Your task to perform on an android device: check google app version Image 0: 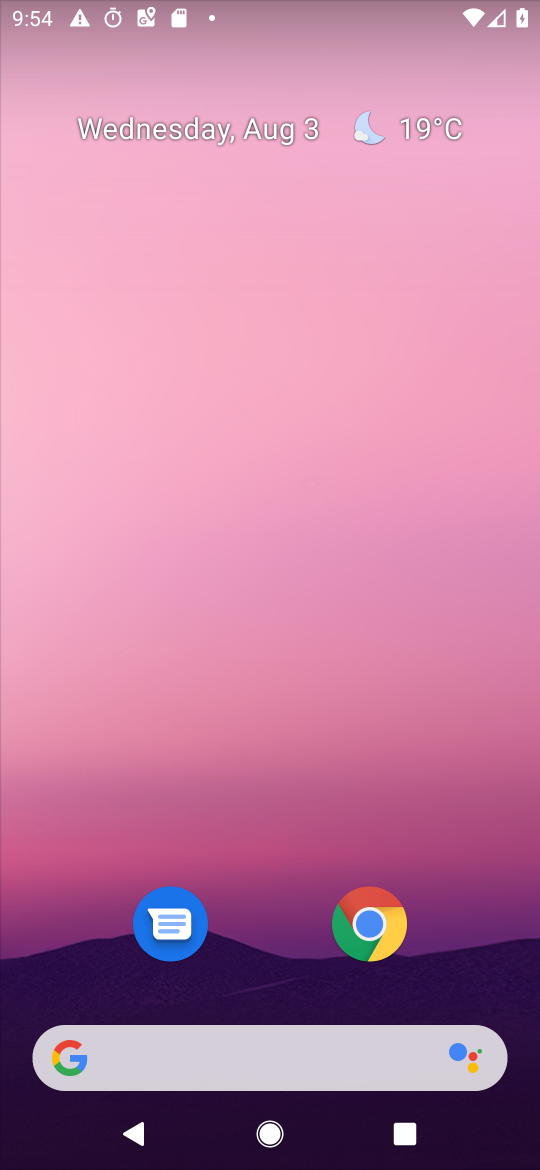
Step 0: press home button
Your task to perform on an android device: check google app version Image 1: 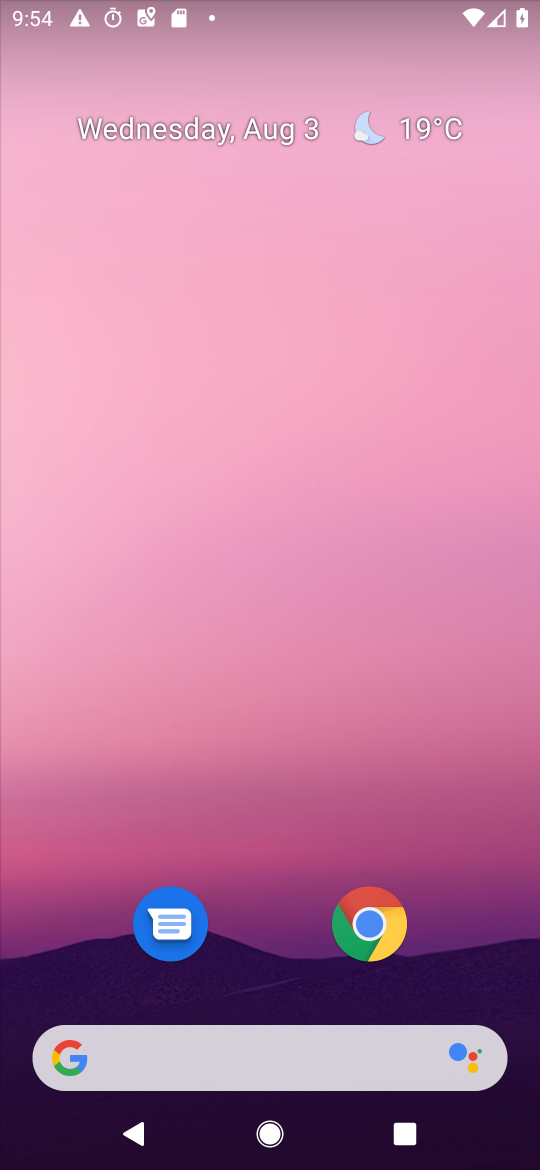
Step 1: drag from (280, 983) to (330, 48)
Your task to perform on an android device: check google app version Image 2: 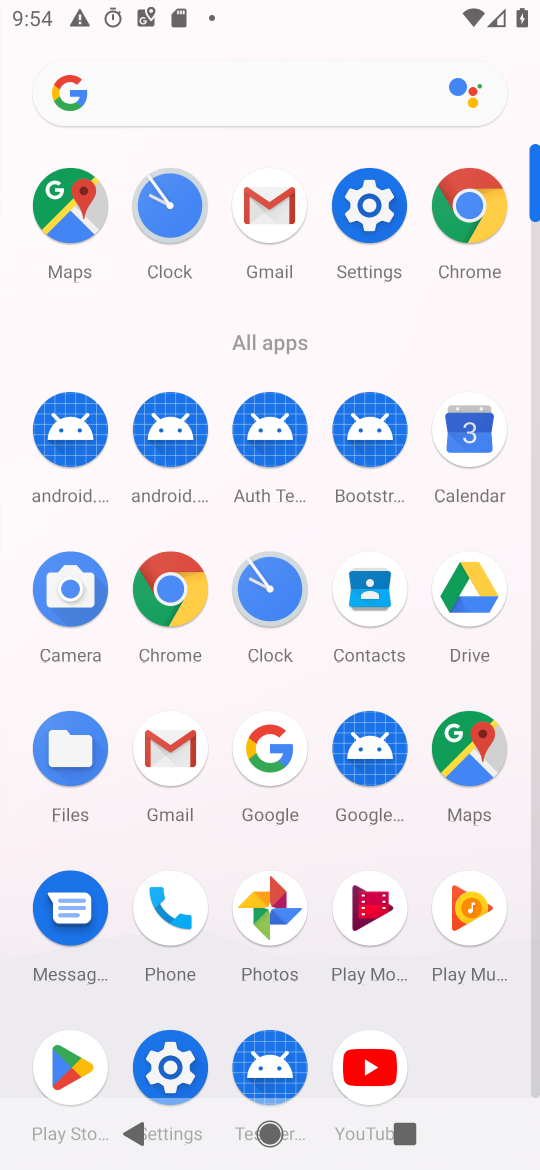
Step 2: click (262, 740)
Your task to perform on an android device: check google app version Image 3: 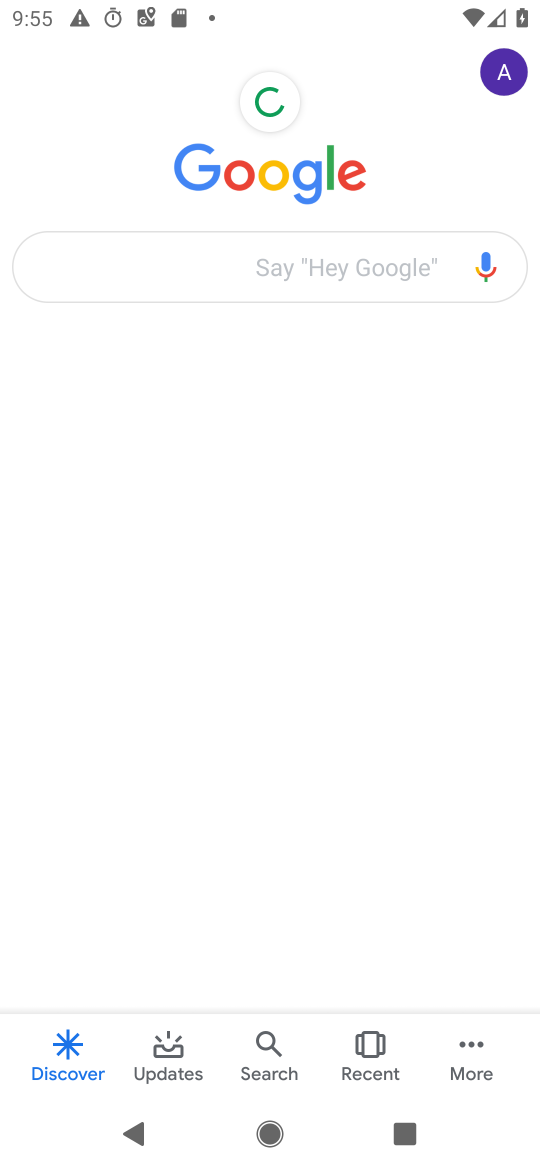
Step 3: click (466, 1039)
Your task to perform on an android device: check google app version Image 4: 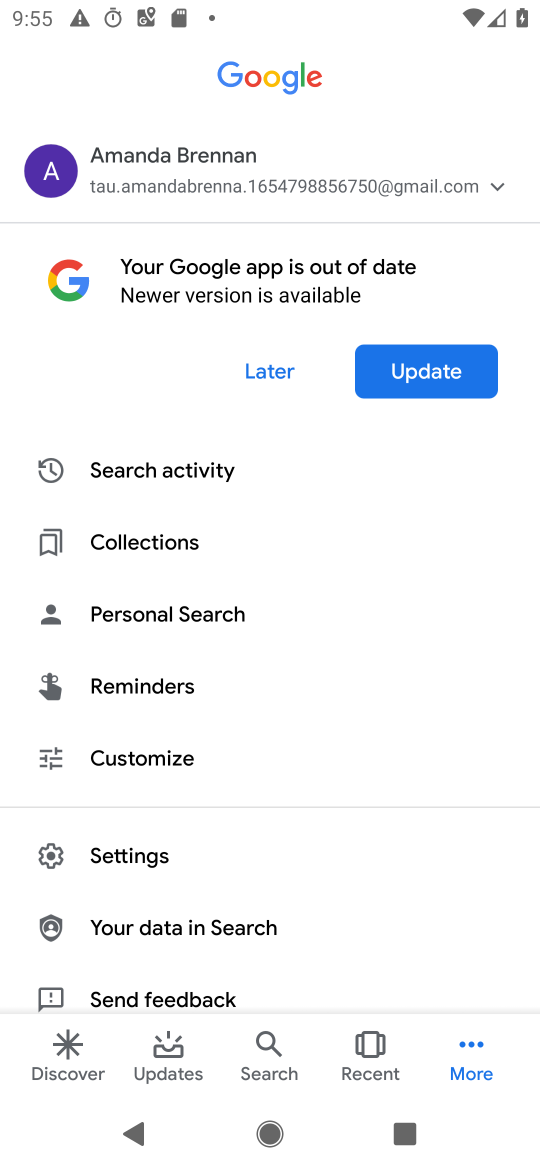
Step 4: click (175, 855)
Your task to perform on an android device: check google app version Image 5: 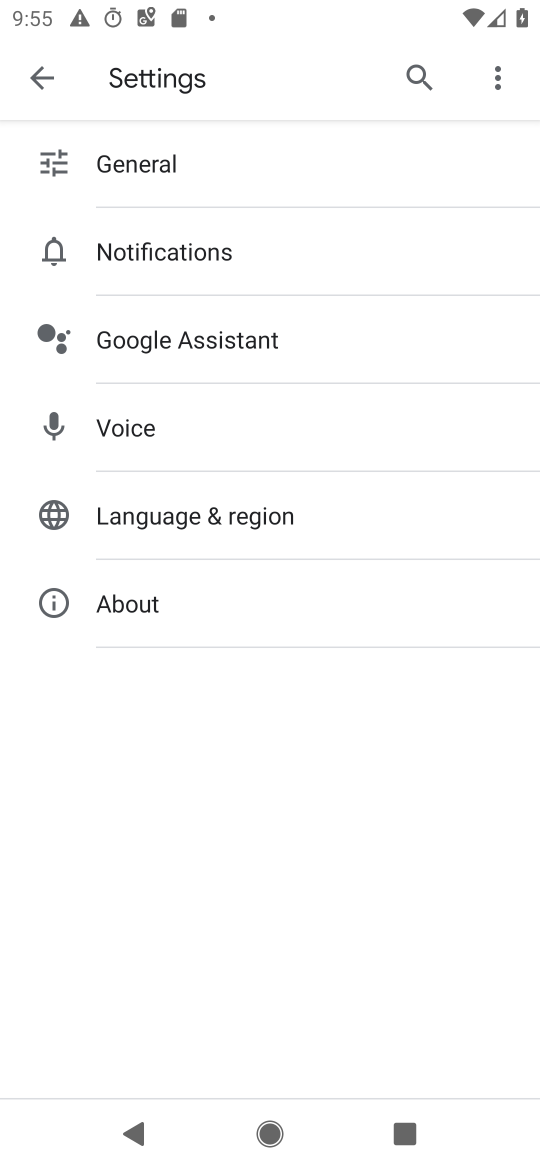
Step 5: click (149, 602)
Your task to perform on an android device: check google app version Image 6: 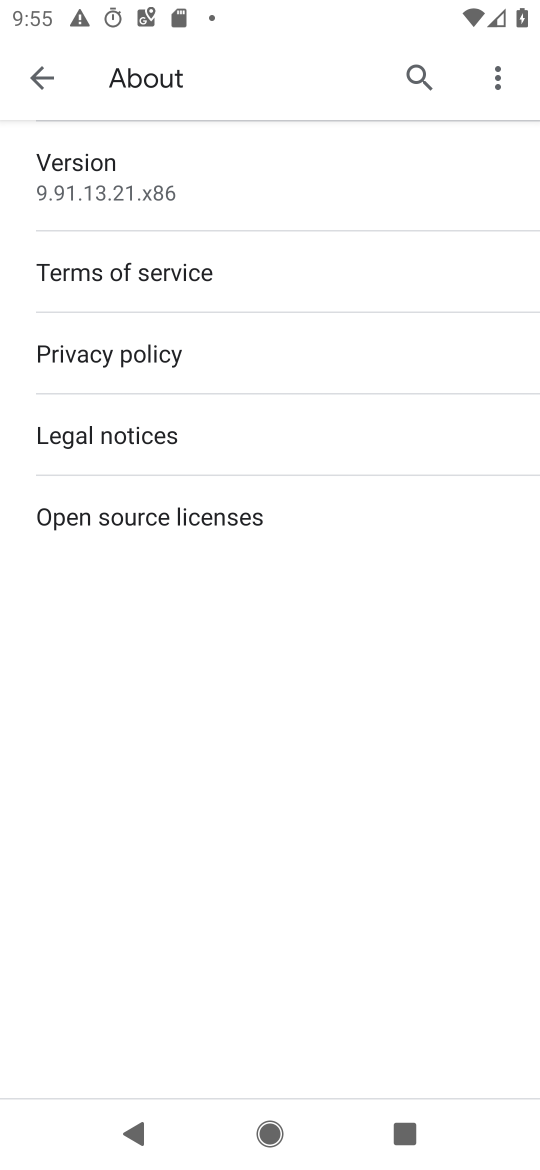
Step 6: task complete